Your task to perform on an android device: Search for sushi restaurants on Maps Image 0: 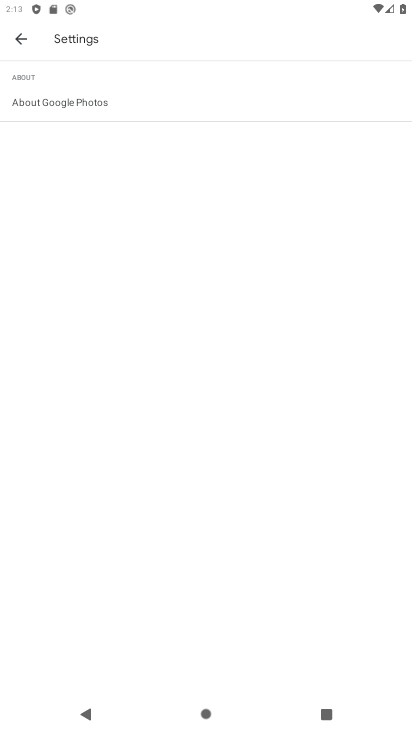
Step 0: press back button
Your task to perform on an android device: Search for sushi restaurants on Maps Image 1: 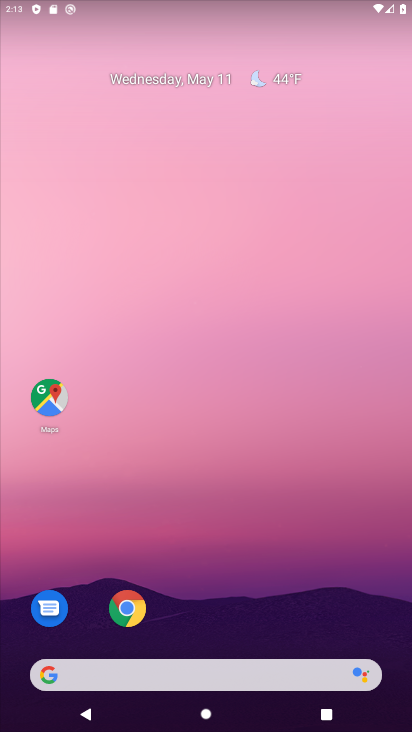
Step 1: click (53, 397)
Your task to perform on an android device: Search for sushi restaurants on Maps Image 2: 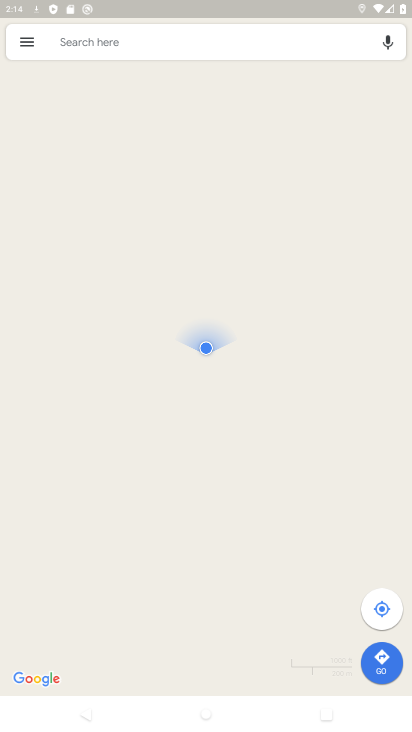
Step 2: click (120, 36)
Your task to perform on an android device: Search for sushi restaurants on Maps Image 3: 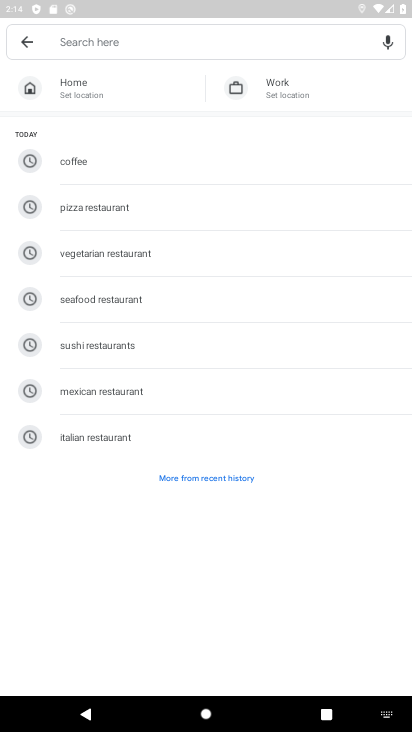
Step 3: type "sushi restaurants "
Your task to perform on an android device: Search for sushi restaurants on Maps Image 4: 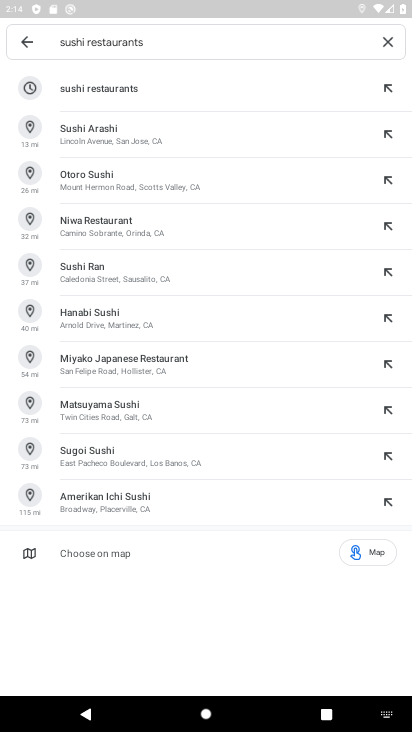
Step 4: click (153, 92)
Your task to perform on an android device: Search for sushi restaurants on Maps Image 5: 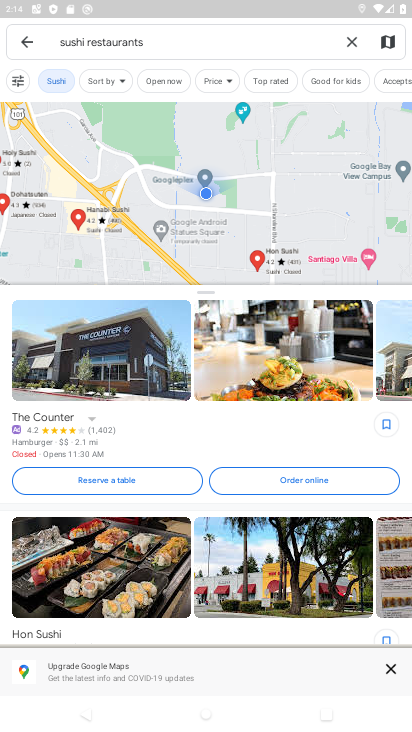
Step 5: task complete